Your task to perform on an android device: add a contact Image 0: 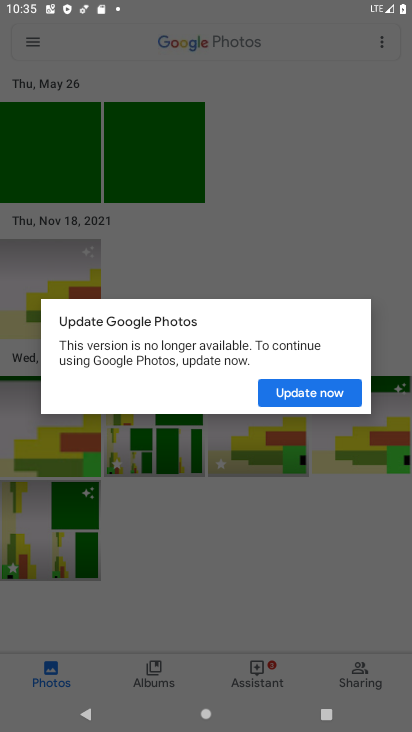
Step 0: press home button
Your task to perform on an android device: add a contact Image 1: 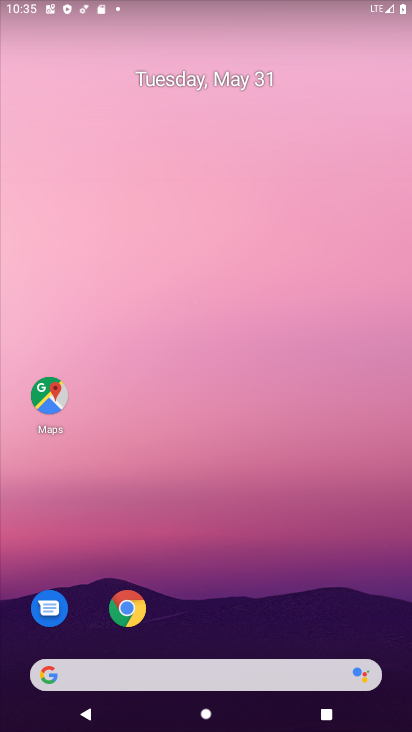
Step 1: drag from (193, 637) to (211, 15)
Your task to perform on an android device: add a contact Image 2: 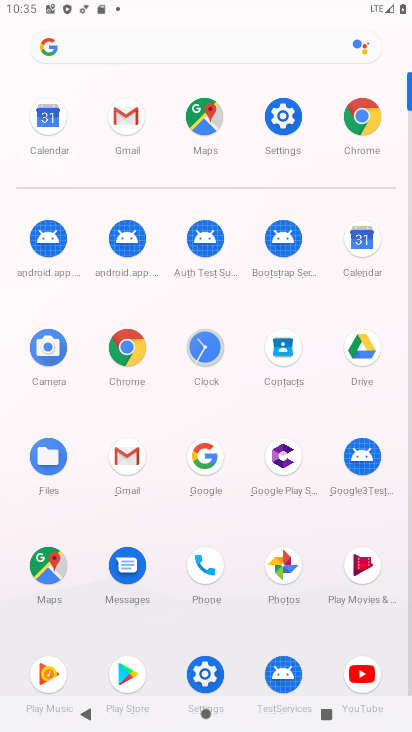
Step 2: click (217, 566)
Your task to perform on an android device: add a contact Image 3: 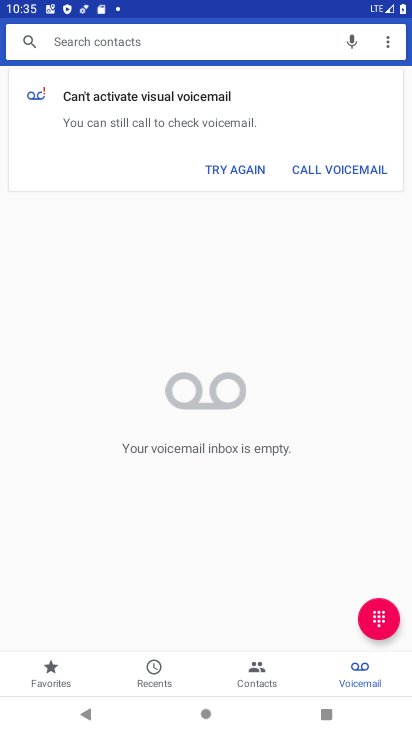
Step 3: click (250, 673)
Your task to perform on an android device: add a contact Image 4: 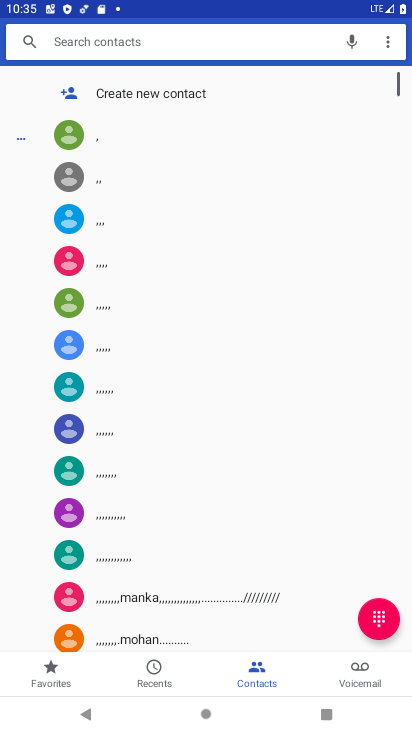
Step 4: click (152, 95)
Your task to perform on an android device: add a contact Image 5: 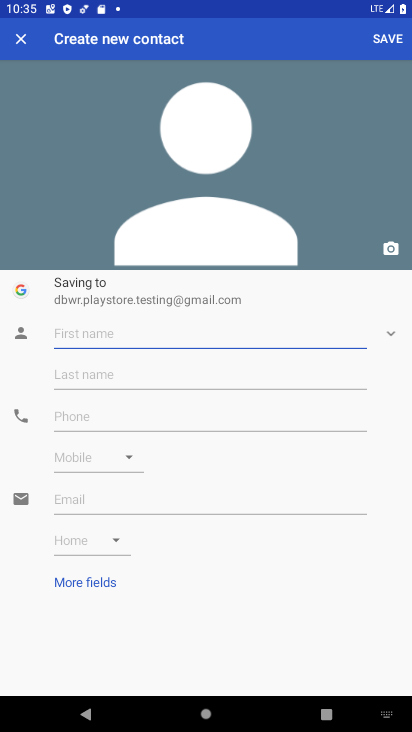
Step 5: type "knkj"
Your task to perform on an android device: add a contact Image 6: 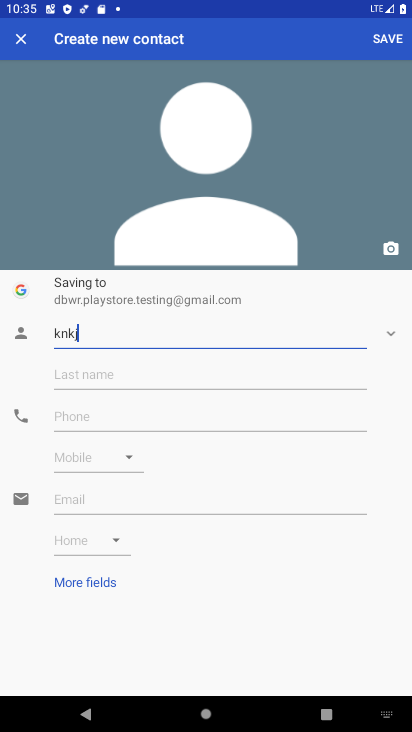
Step 6: click (171, 427)
Your task to perform on an android device: add a contact Image 7: 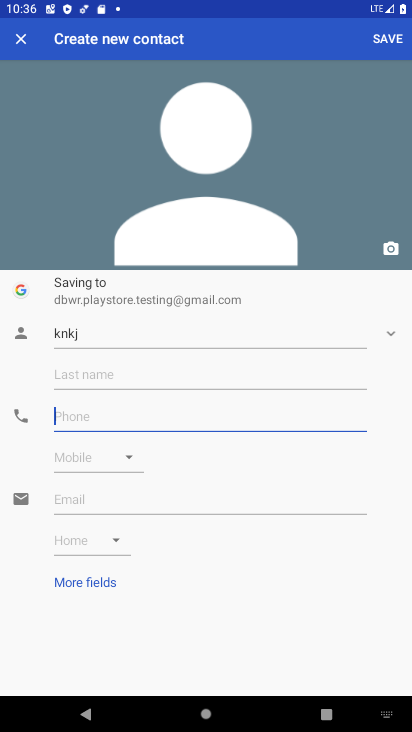
Step 7: type "9876789"
Your task to perform on an android device: add a contact Image 8: 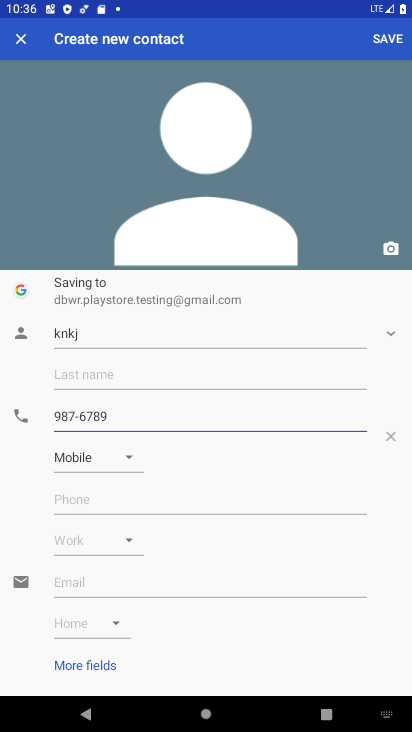
Step 8: click (381, 42)
Your task to perform on an android device: add a contact Image 9: 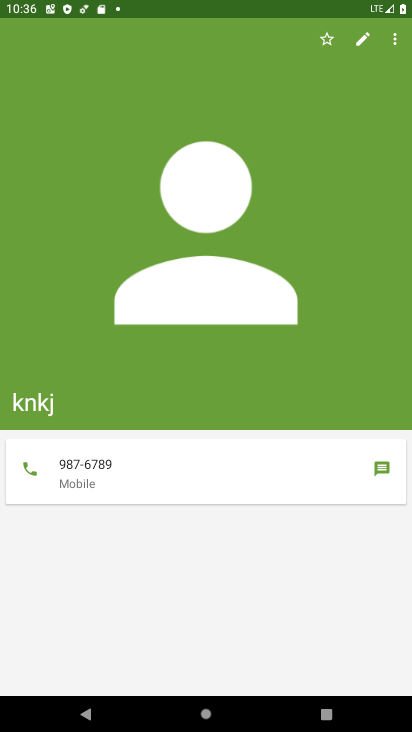
Step 9: task complete